Your task to perform on an android device: turn on wifi Image 0: 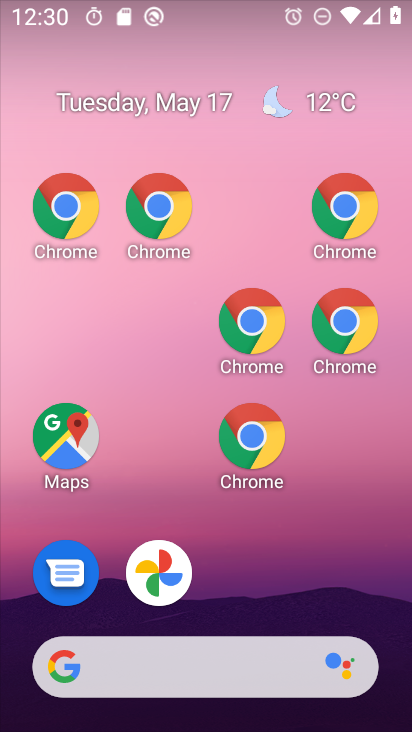
Step 0: drag from (315, 594) to (216, 99)
Your task to perform on an android device: turn on wifi Image 1: 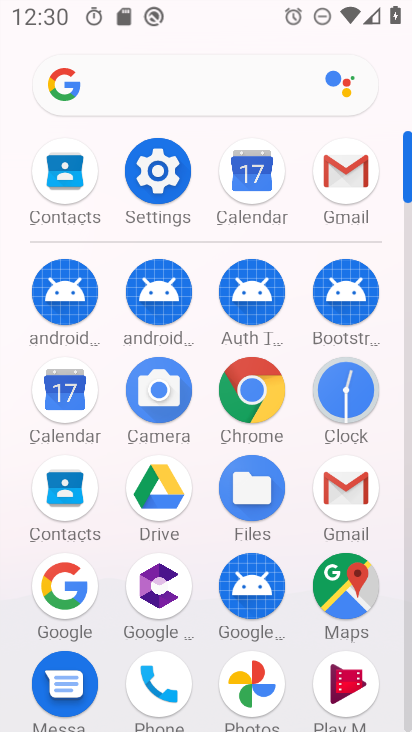
Step 1: drag from (384, 718) to (276, 149)
Your task to perform on an android device: turn on wifi Image 2: 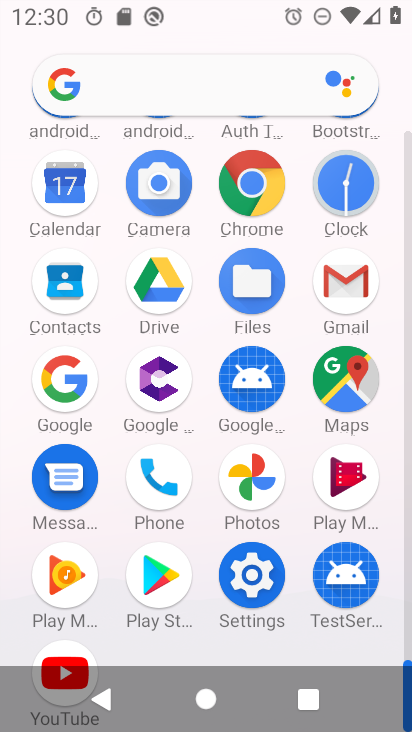
Step 2: click (260, 582)
Your task to perform on an android device: turn on wifi Image 3: 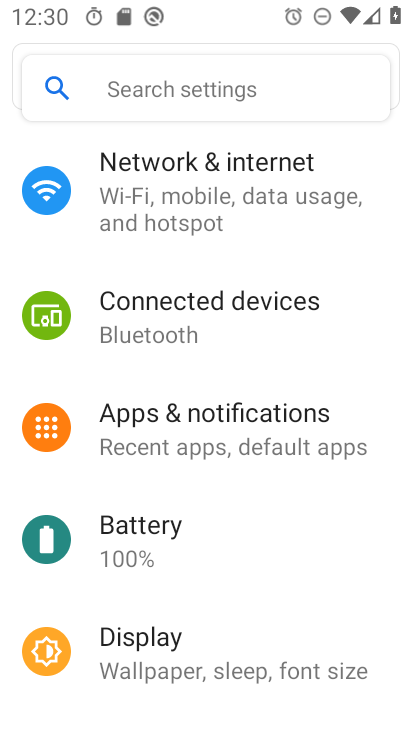
Step 3: click (198, 190)
Your task to perform on an android device: turn on wifi Image 4: 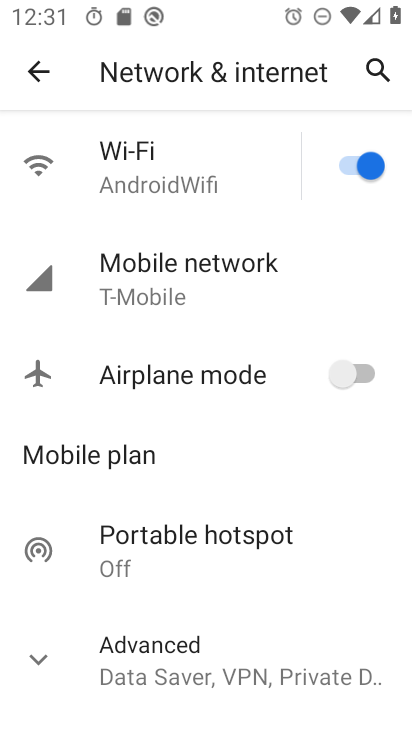
Step 4: task complete